Your task to perform on an android device: Go to Wikipedia Image 0: 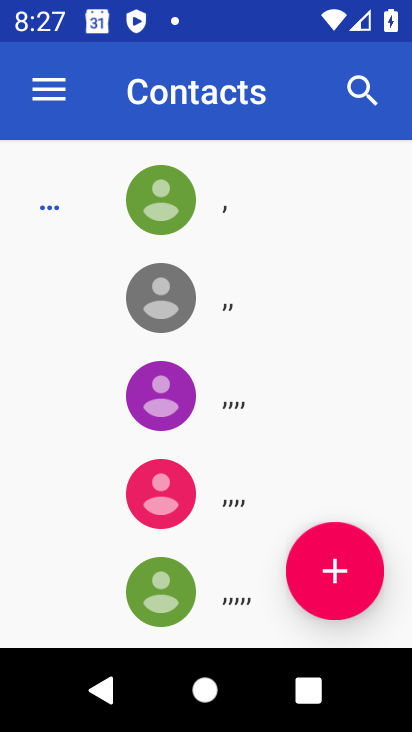
Step 0: press home button
Your task to perform on an android device: Go to Wikipedia Image 1: 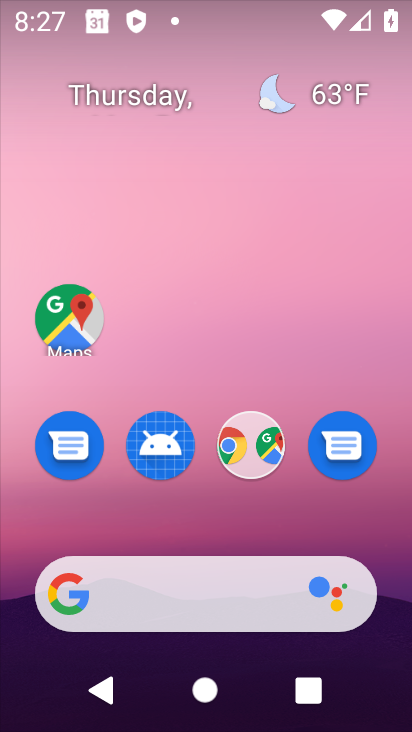
Step 1: drag from (223, 545) to (370, 128)
Your task to perform on an android device: Go to Wikipedia Image 2: 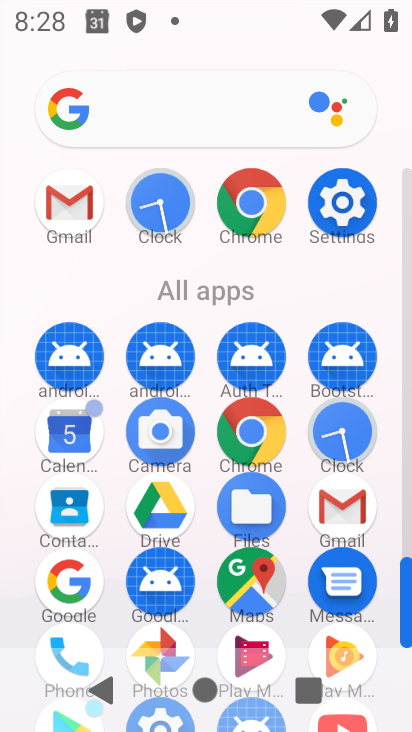
Step 2: click (266, 421)
Your task to perform on an android device: Go to Wikipedia Image 3: 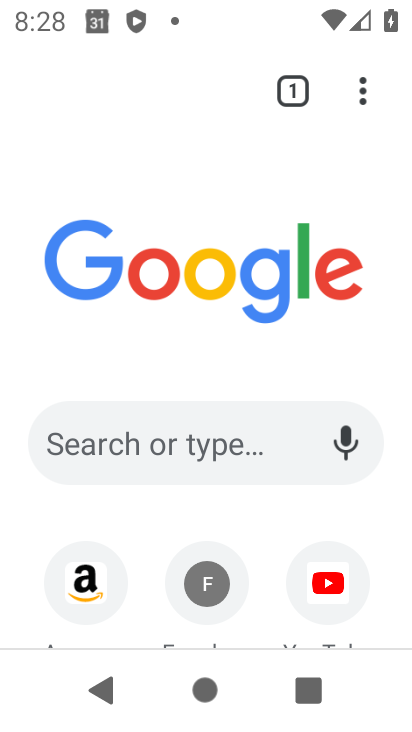
Step 3: drag from (153, 509) to (127, 133)
Your task to perform on an android device: Go to Wikipedia Image 4: 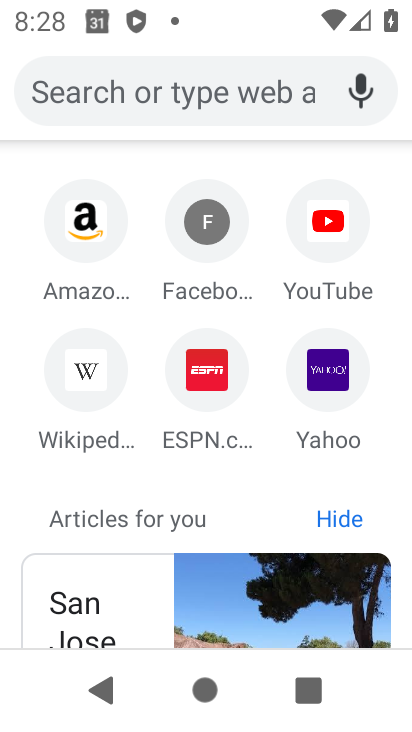
Step 4: click (85, 392)
Your task to perform on an android device: Go to Wikipedia Image 5: 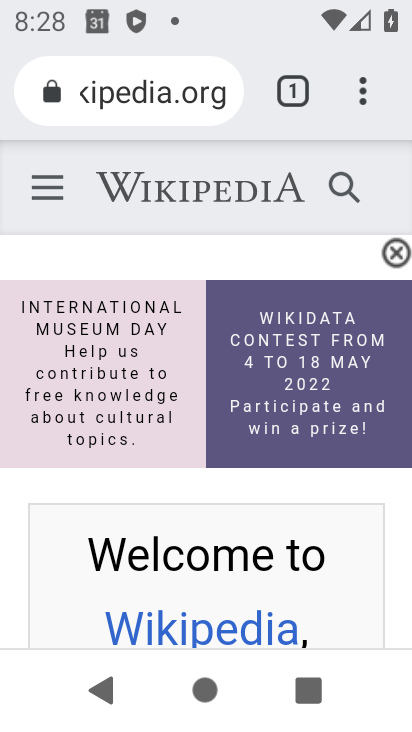
Step 5: task complete